Your task to perform on an android device: move an email to a new category in the gmail app Image 0: 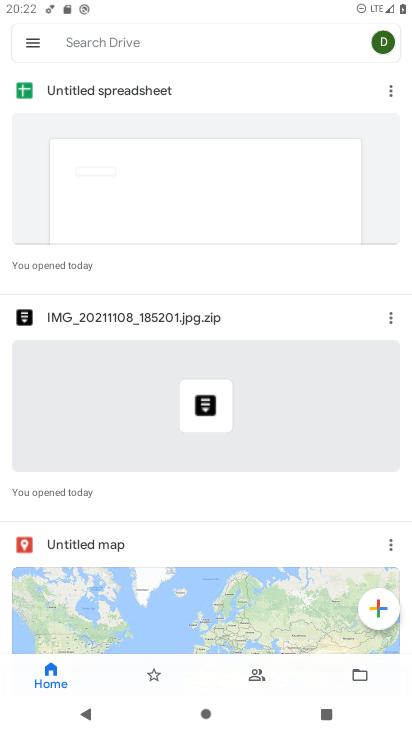
Step 0: press home button
Your task to perform on an android device: move an email to a new category in the gmail app Image 1: 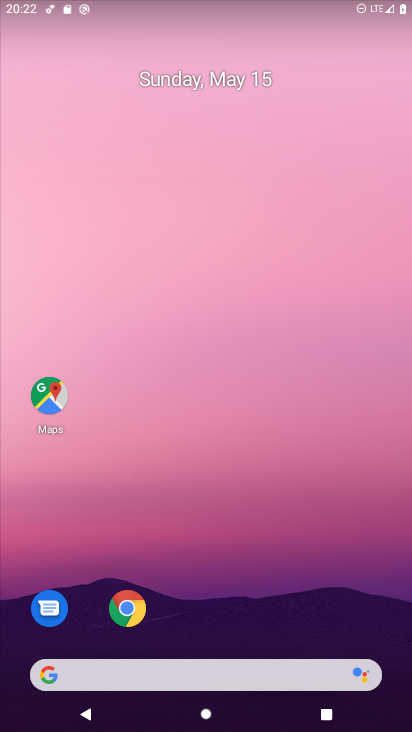
Step 1: drag from (209, 606) to (172, 83)
Your task to perform on an android device: move an email to a new category in the gmail app Image 2: 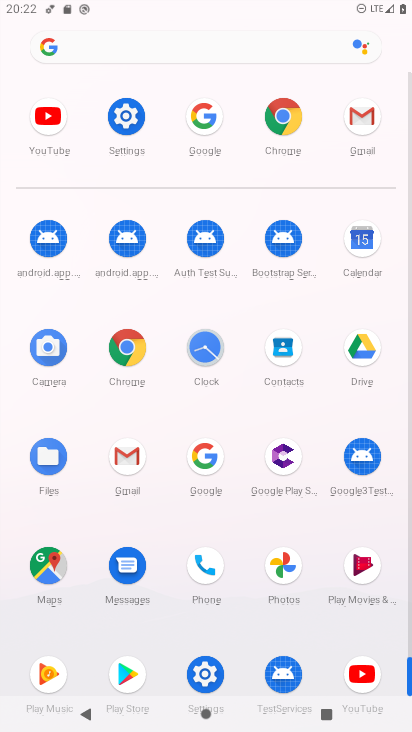
Step 2: click (360, 112)
Your task to perform on an android device: move an email to a new category in the gmail app Image 3: 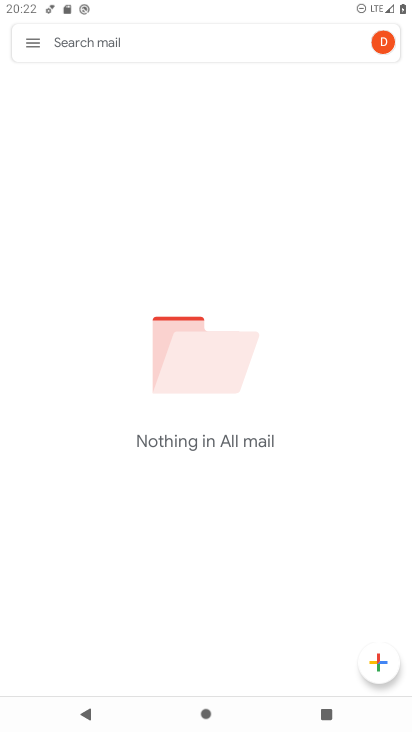
Step 3: click (32, 32)
Your task to perform on an android device: move an email to a new category in the gmail app Image 4: 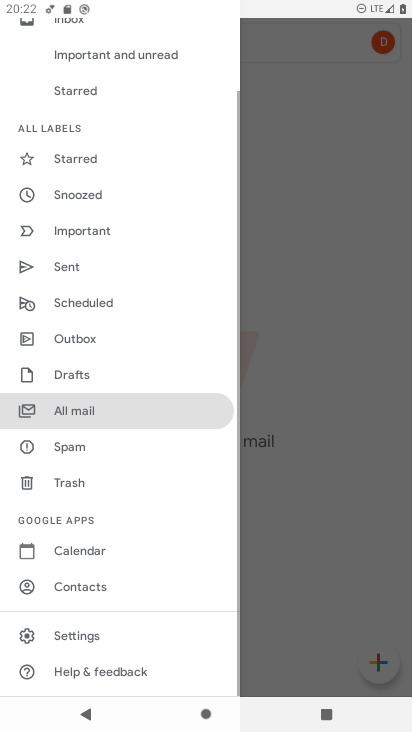
Step 4: click (118, 408)
Your task to perform on an android device: move an email to a new category in the gmail app Image 5: 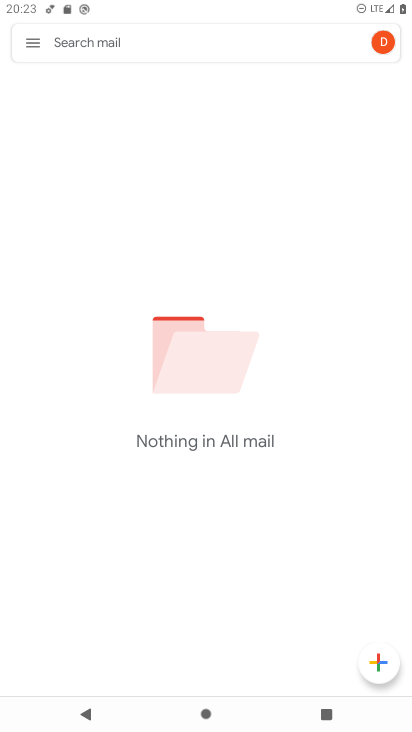
Step 5: task complete